Your task to perform on an android device: What's the news in Bolivia? Image 0: 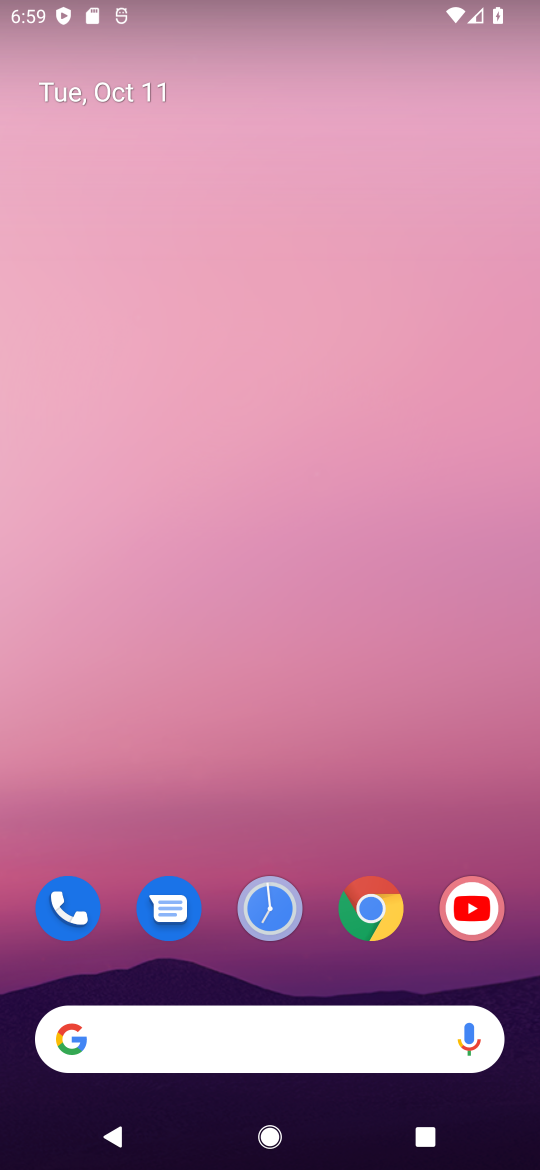
Step 0: click (193, 1028)
Your task to perform on an android device: What's the news in Bolivia? Image 1: 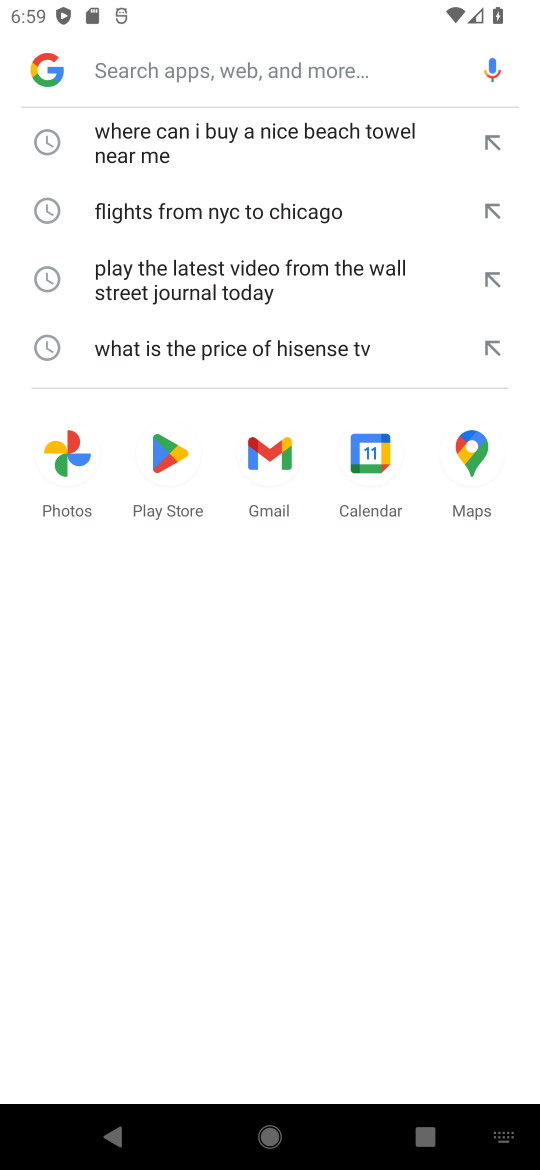
Step 1: type "whats the news in bolivia"
Your task to perform on an android device: What's the news in Bolivia? Image 2: 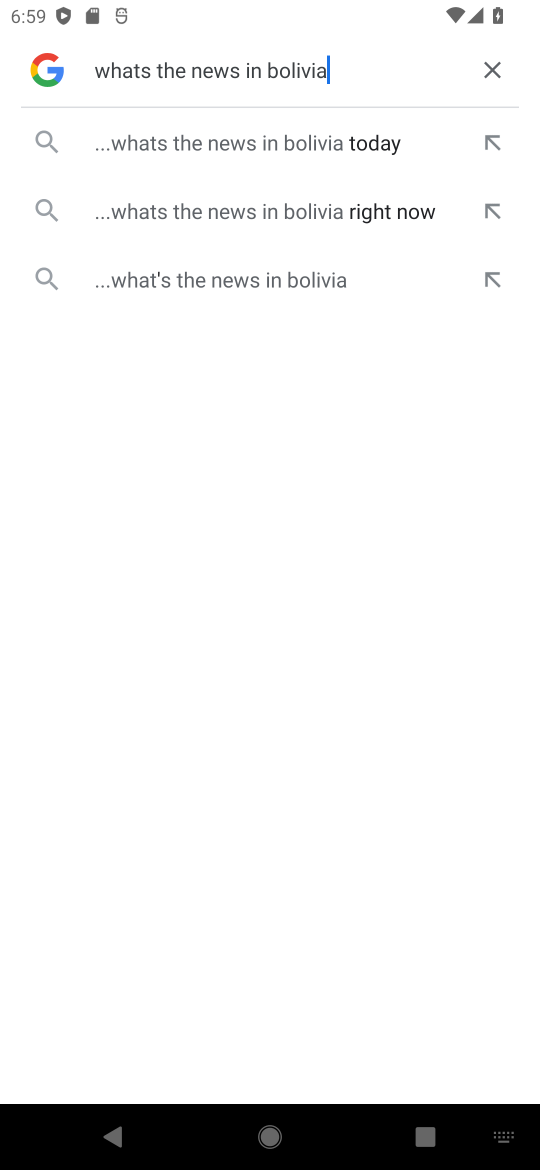
Step 2: click (306, 145)
Your task to perform on an android device: What's the news in Bolivia? Image 3: 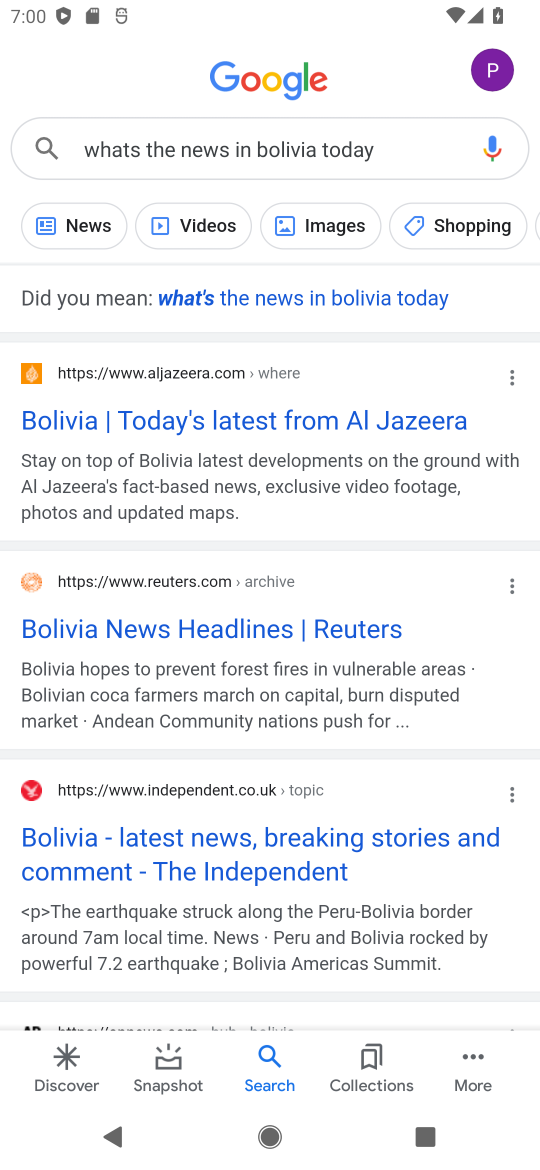
Step 3: click (214, 422)
Your task to perform on an android device: What's the news in Bolivia? Image 4: 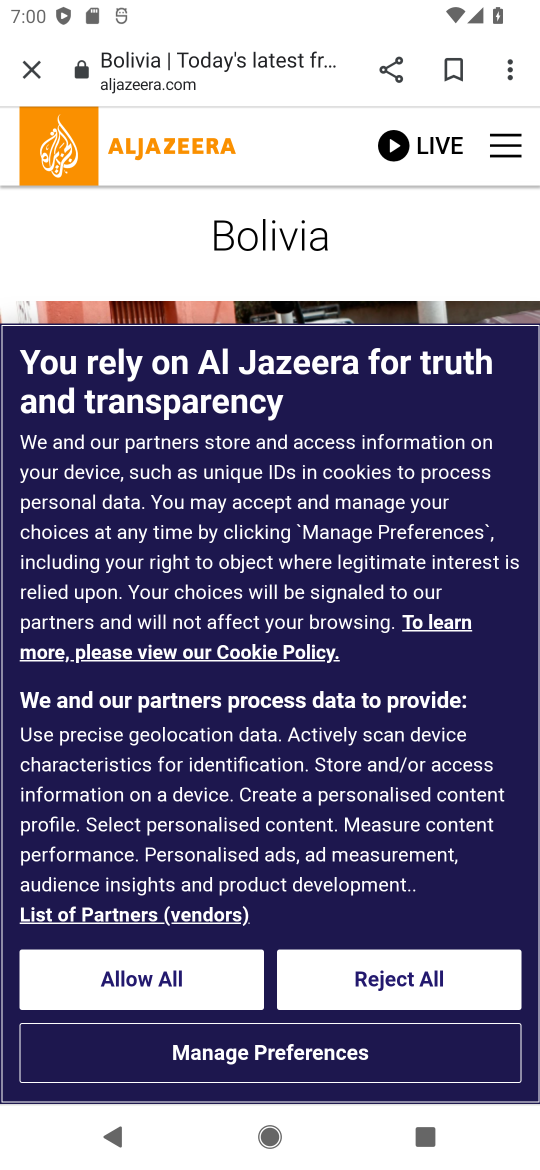
Step 4: click (185, 979)
Your task to perform on an android device: What's the news in Bolivia? Image 5: 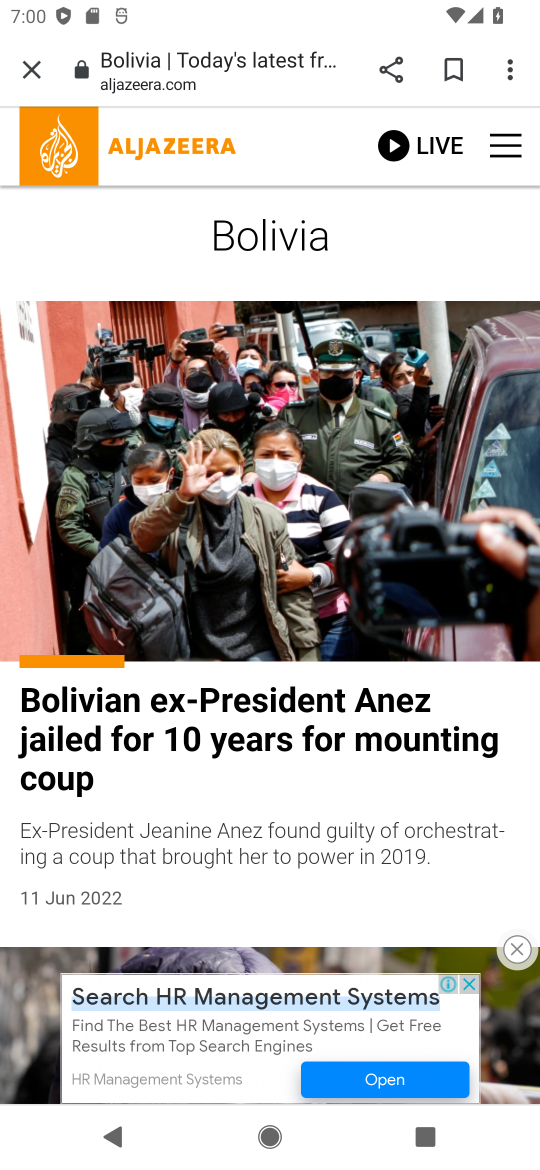
Step 5: task complete